Your task to perform on an android device: Go to battery settings Image 0: 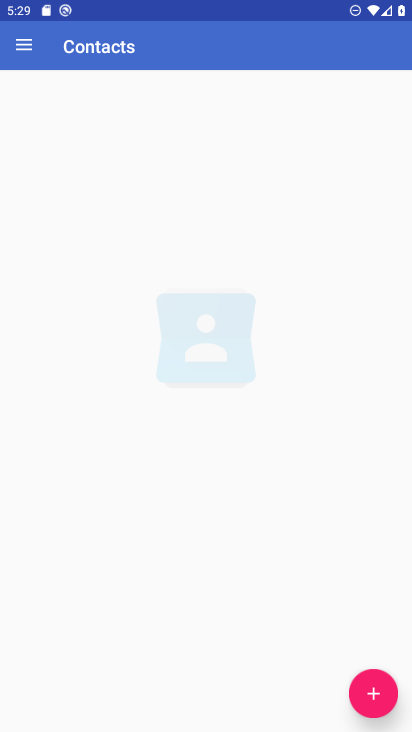
Step 0: press home button
Your task to perform on an android device: Go to battery settings Image 1: 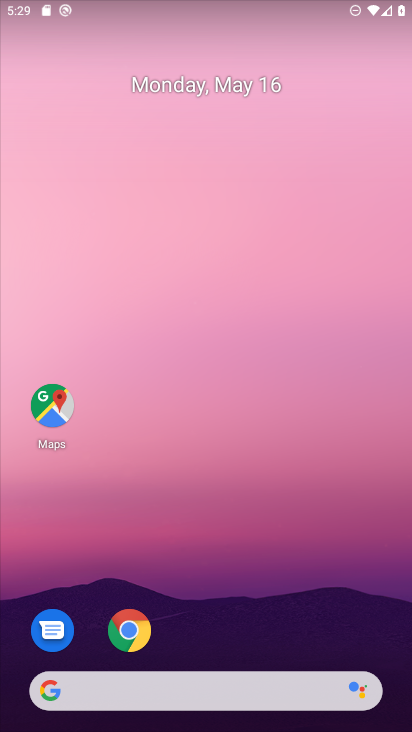
Step 1: drag from (293, 577) to (370, 57)
Your task to perform on an android device: Go to battery settings Image 2: 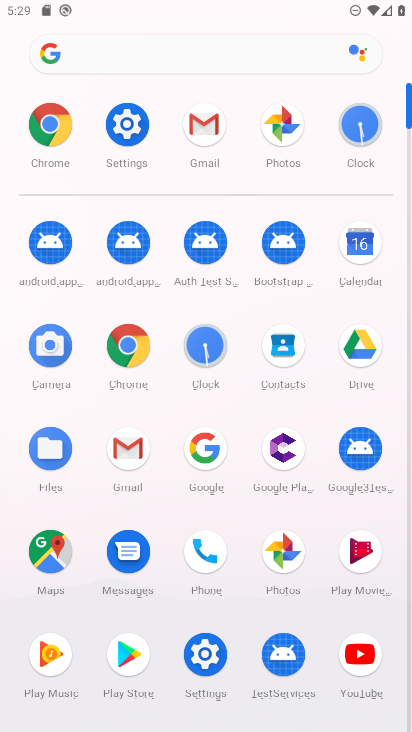
Step 2: click (126, 114)
Your task to perform on an android device: Go to battery settings Image 3: 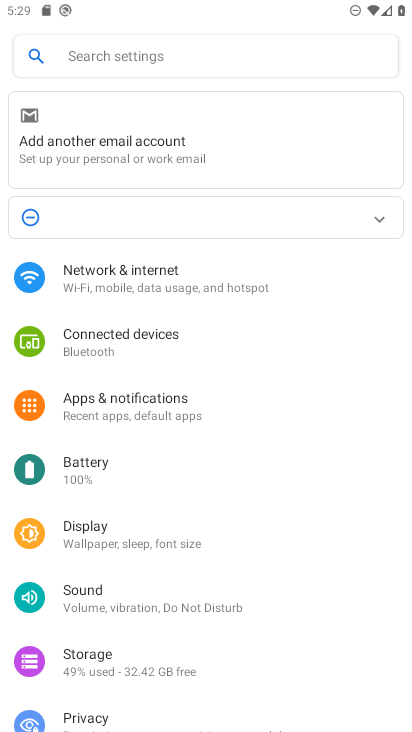
Step 3: click (48, 469)
Your task to perform on an android device: Go to battery settings Image 4: 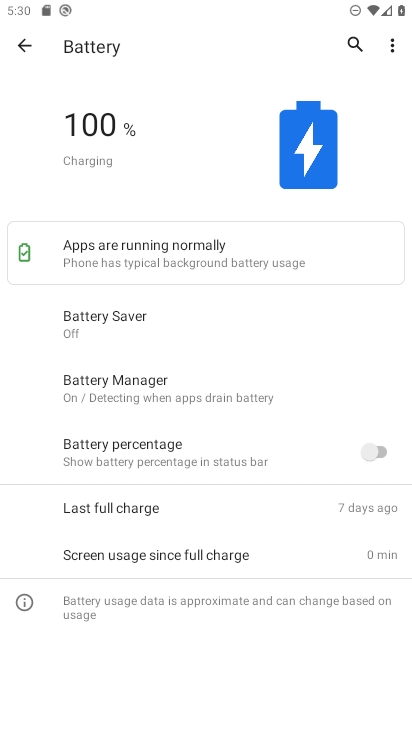
Step 4: task complete